Your task to perform on an android device: Search for seafood restaurants on Google Maps Image 0: 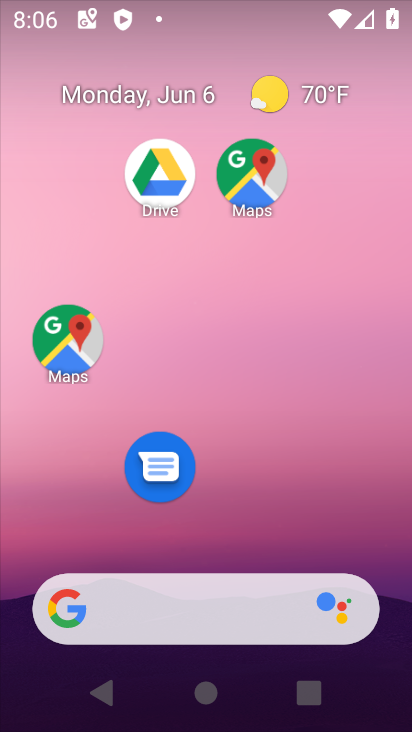
Step 0: drag from (301, 668) to (195, 3)
Your task to perform on an android device: Search for seafood restaurants on Google Maps Image 1: 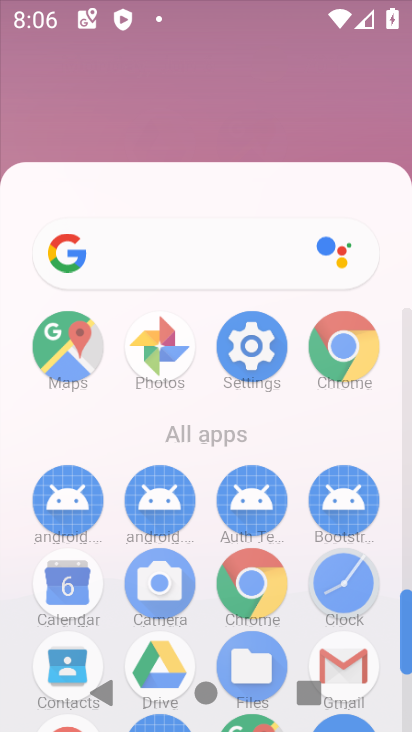
Step 1: drag from (285, 624) to (228, 115)
Your task to perform on an android device: Search for seafood restaurants on Google Maps Image 2: 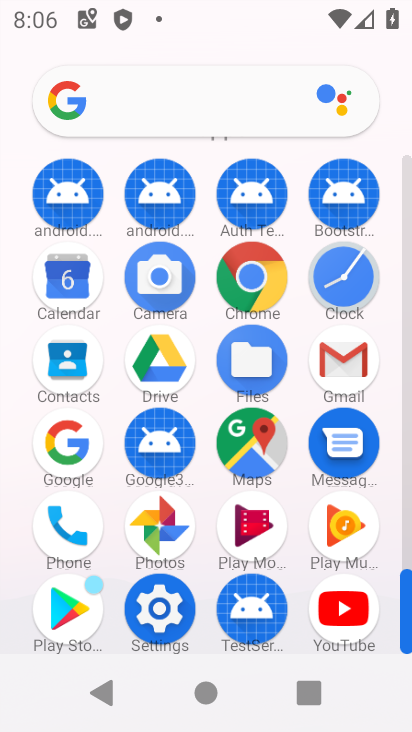
Step 2: click (255, 452)
Your task to perform on an android device: Search for seafood restaurants on Google Maps Image 3: 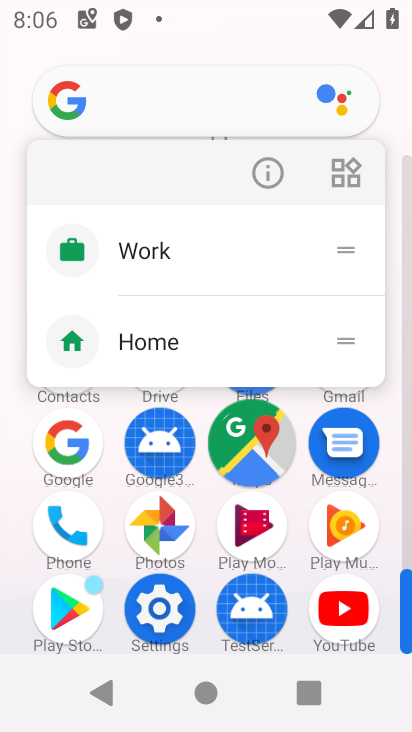
Step 3: click (256, 453)
Your task to perform on an android device: Search for seafood restaurants on Google Maps Image 4: 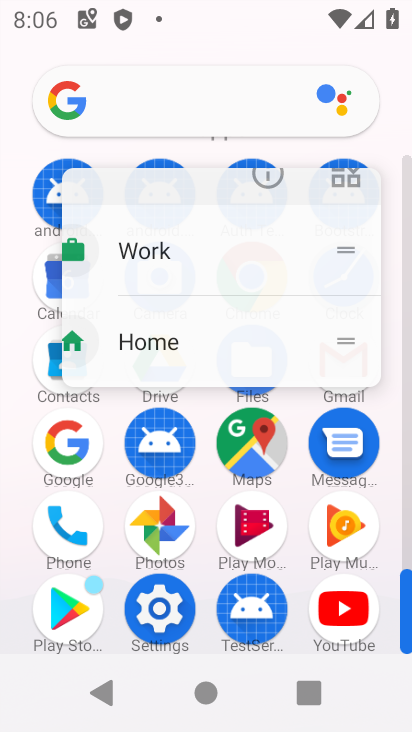
Step 4: click (256, 452)
Your task to perform on an android device: Search for seafood restaurants on Google Maps Image 5: 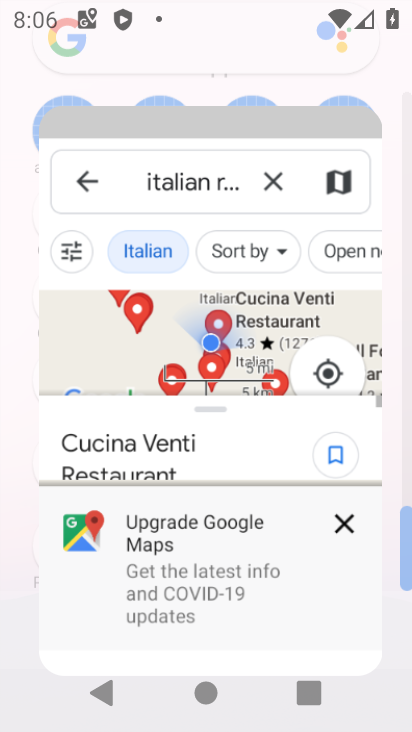
Step 5: click (256, 452)
Your task to perform on an android device: Search for seafood restaurants on Google Maps Image 6: 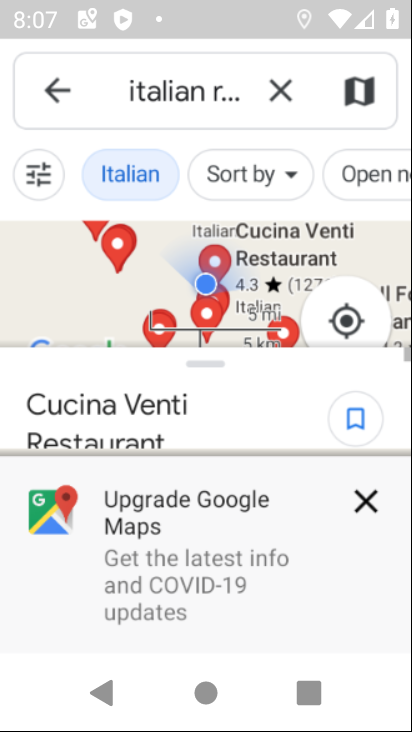
Step 6: click (279, 97)
Your task to perform on an android device: Search for seafood restaurants on Google Maps Image 7: 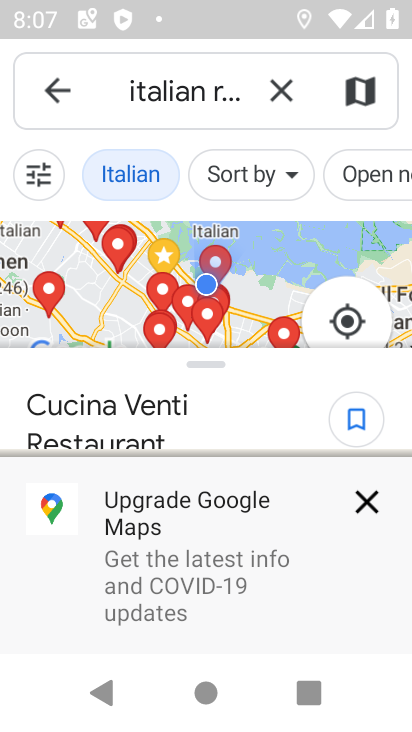
Step 7: click (279, 86)
Your task to perform on an android device: Search for seafood restaurants on Google Maps Image 8: 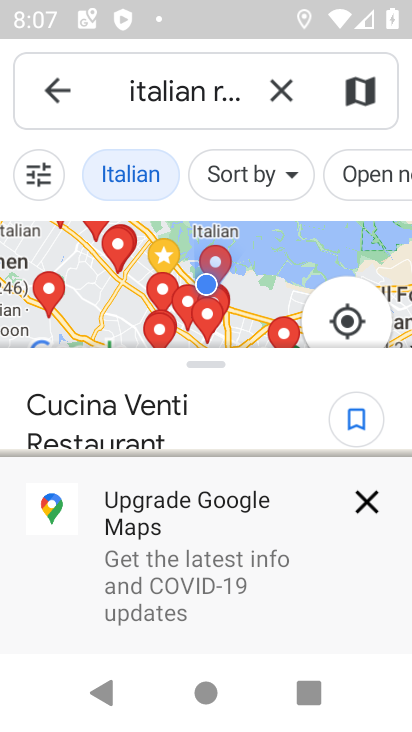
Step 8: click (280, 85)
Your task to perform on an android device: Search for seafood restaurants on Google Maps Image 9: 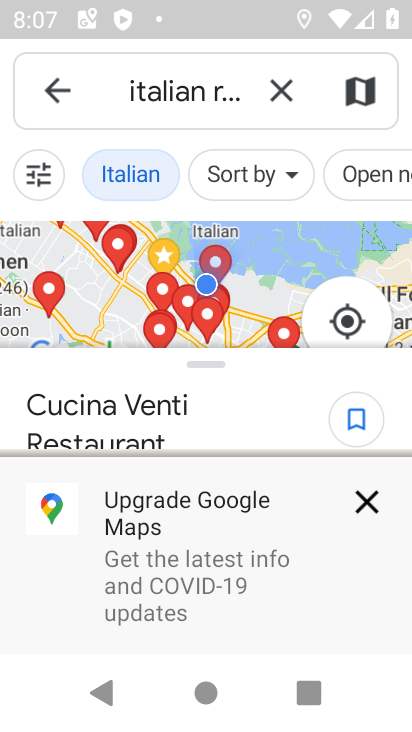
Step 9: click (280, 85)
Your task to perform on an android device: Search for seafood restaurants on Google Maps Image 10: 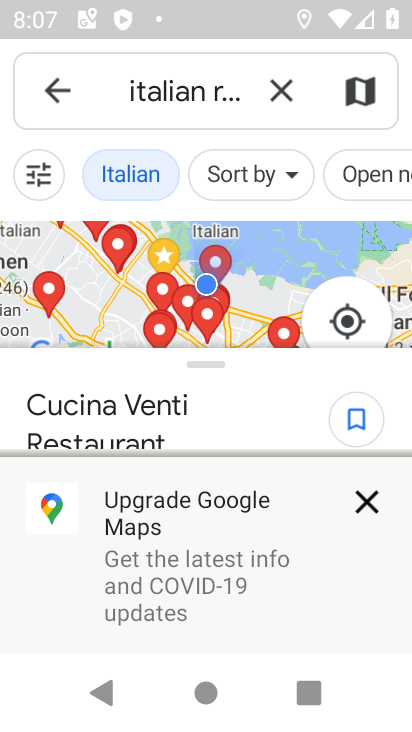
Step 10: click (280, 85)
Your task to perform on an android device: Search for seafood restaurants on Google Maps Image 11: 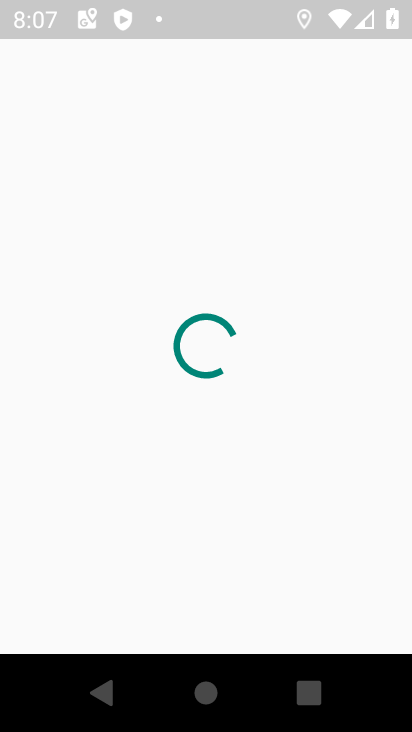
Step 11: click (281, 85)
Your task to perform on an android device: Search for seafood restaurants on Google Maps Image 12: 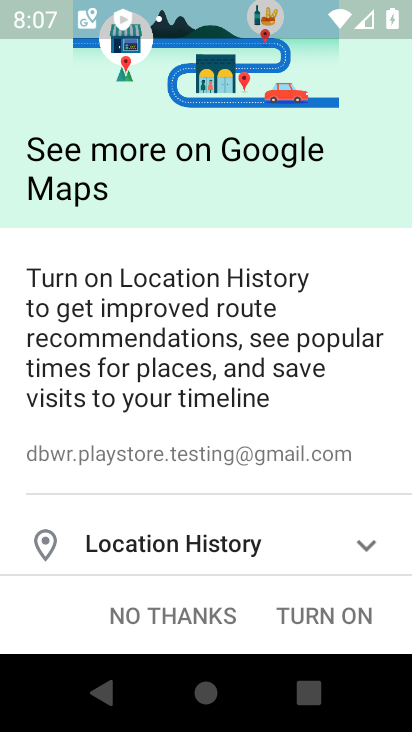
Step 12: click (165, 616)
Your task to perform on an android device: Search for seafood restaurants on Google Maps Image 13: 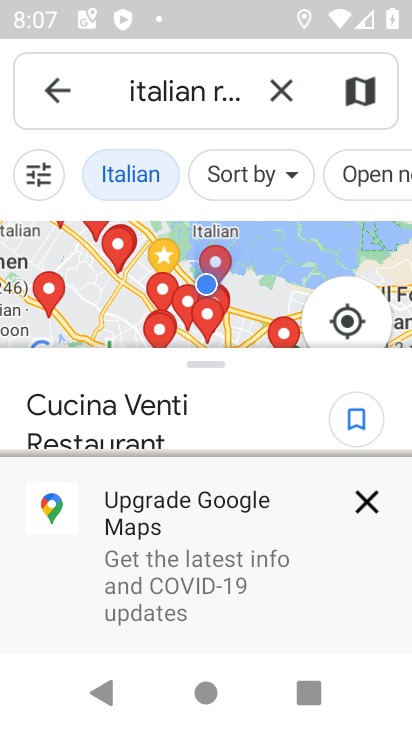
Step 13: click (279, 102)
Your task to perform on an android device: Search for seafood restaurants on Google Maps Image 14: 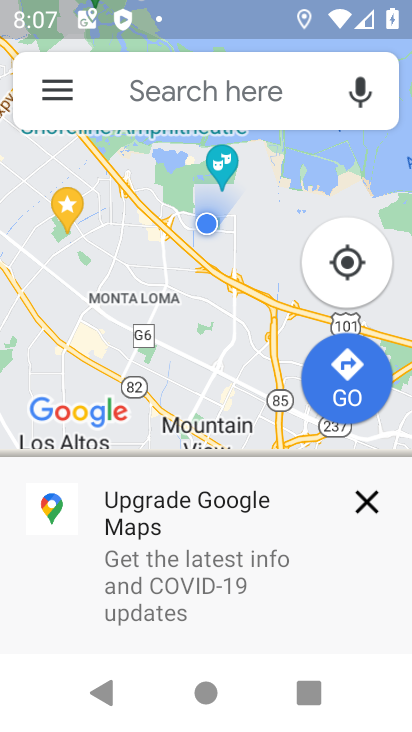
Step 14: click (132, 85)
Your task to perform on an android device: Search for seafood restaurants on Google Maps Image 15: 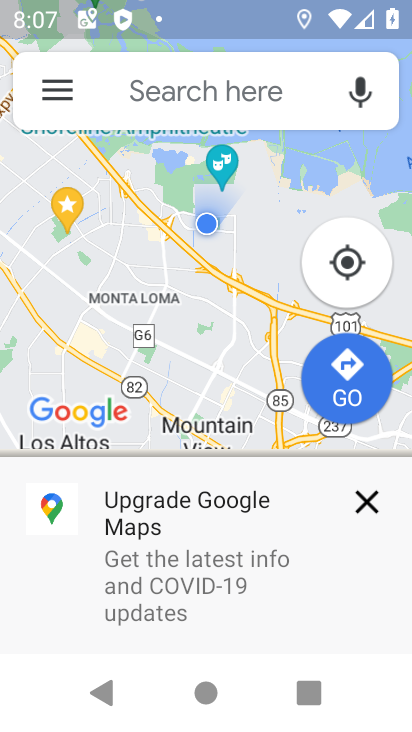
Step 15: click (132, 85)
Your task to perform on an android device: Search for seafood restaurants on Google Maps Image 16: 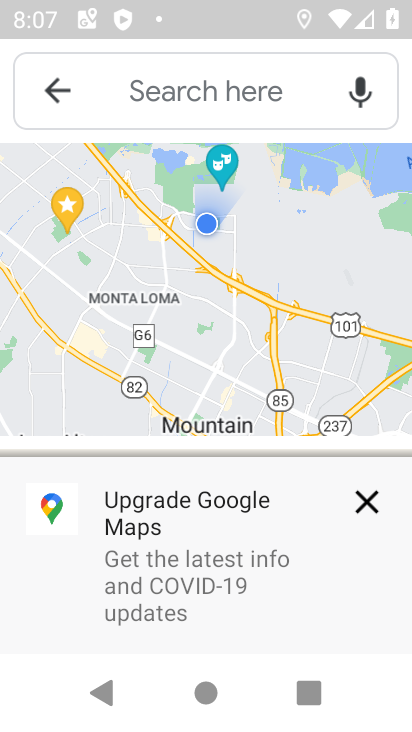
Step 16: click (132, 85)
Your task to perform on an android device: Search for seafood restaurants on Google Maps Image 17: 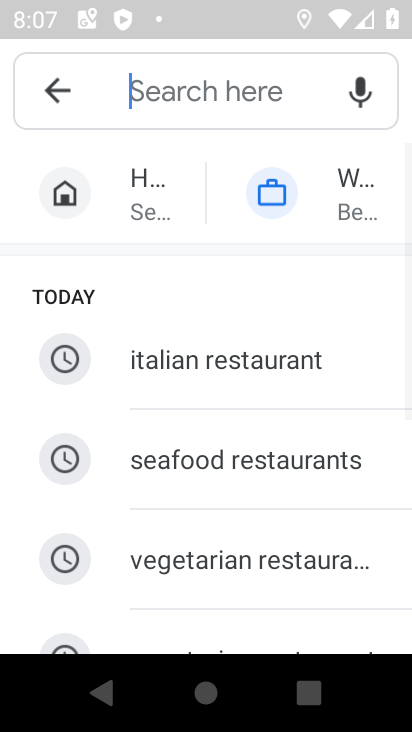
Step 17: click (204, 452)
Your task to perform on an android device: Search for seafood restaurants on Google Maps Image 18: 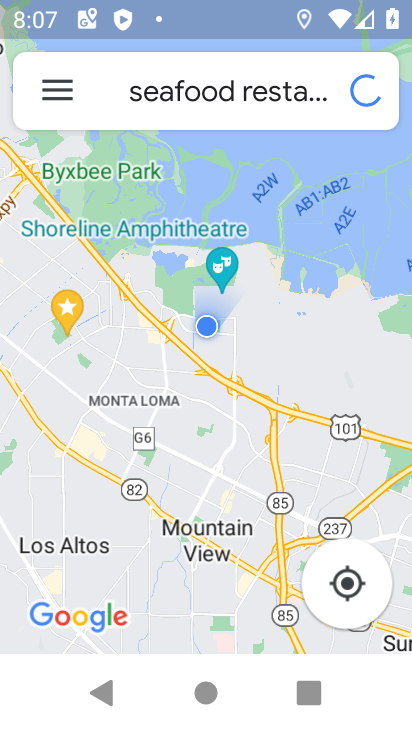
Step 18: click (176, 464)
Your task to perform on an android device: Search for seafood restaurants on Google Maps Image 19: 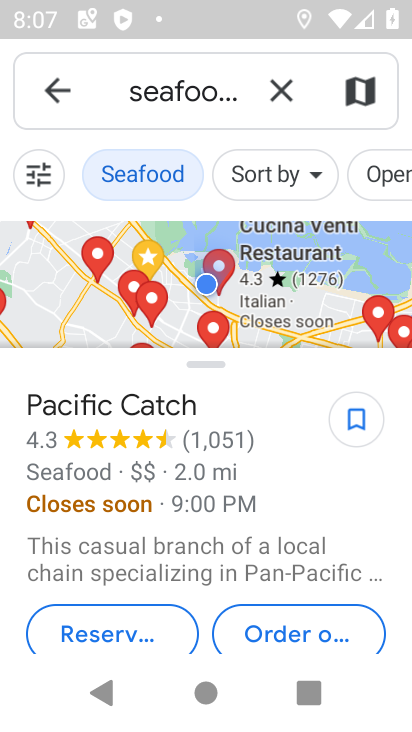
Step 19: task complete